Your task to perform on an android device: Open the phone app and click the voicemail tab. Image 0: 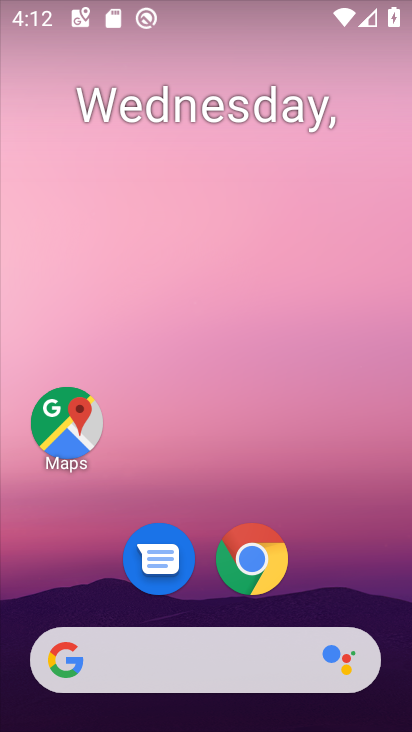
Step 0: drag from (335, 486) to (153, 96)
Your task to perform on an android device: Open the phone app and click the voicemail tab. Image 1: 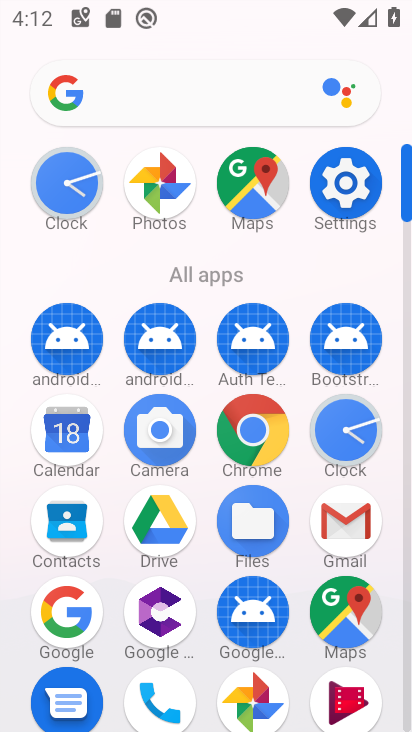
Step 1: drag from (218, 614) to (217, 280)
Your task to perform on an android device: Open the phone app and click the voicemail tab. Image 2: 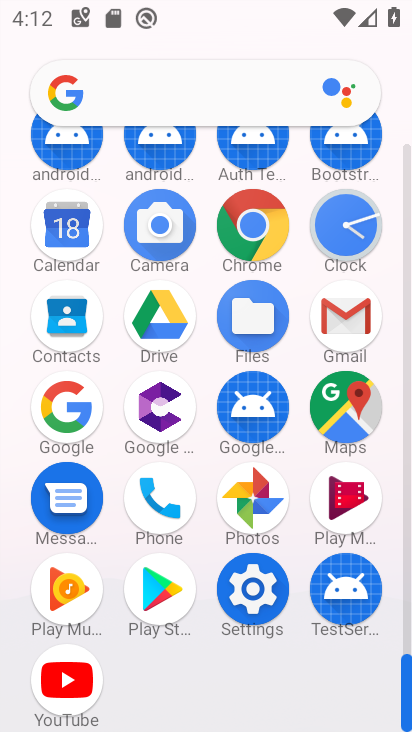
Step 2: click (162, 492)
Your task to perform on an android device: Open the phone app and click the voicemail tab. Image 3: 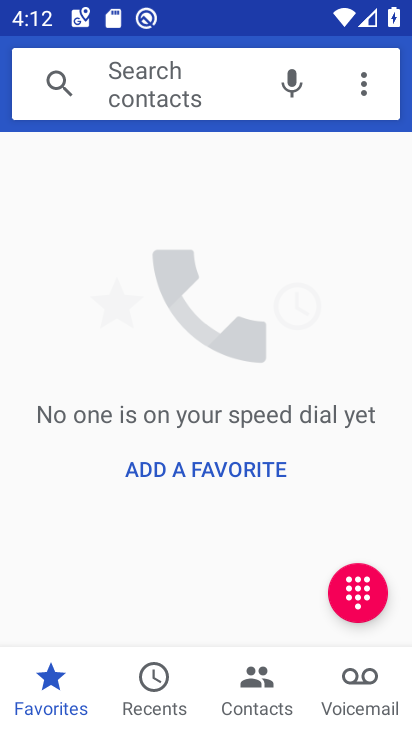
Step 3: click (361, 687)
Your task to perform on an android device: Open the phone app and click the voicemail tab. Image 4: 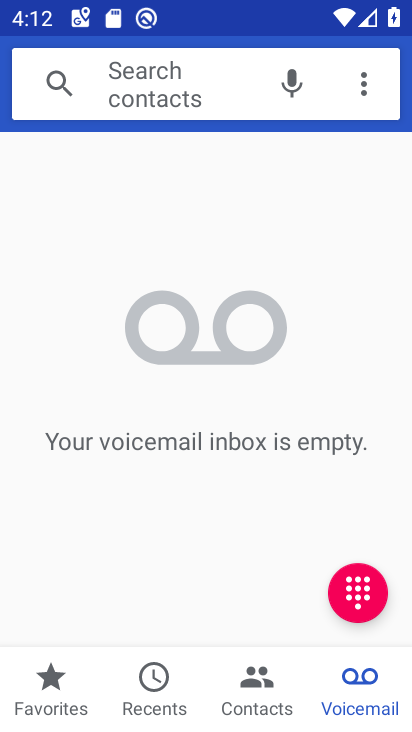
Step 4: task complete